Your task to perform on an android device: turn on showing notifications on the lock screen Image 0: 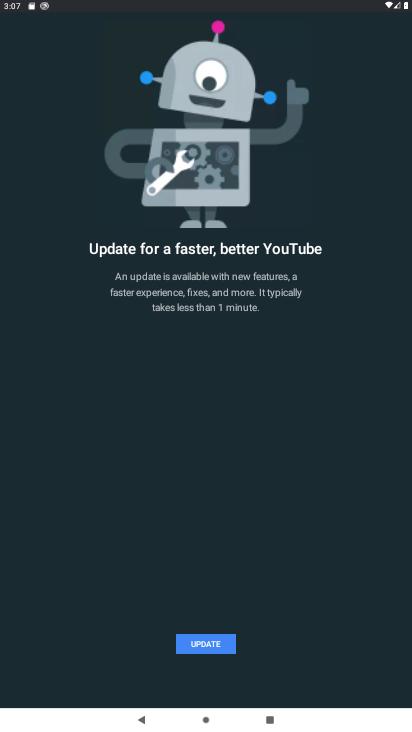
Step 0: press back button
Your task to perform on an android device: turn on showing notifications on the lock screen Image 1: 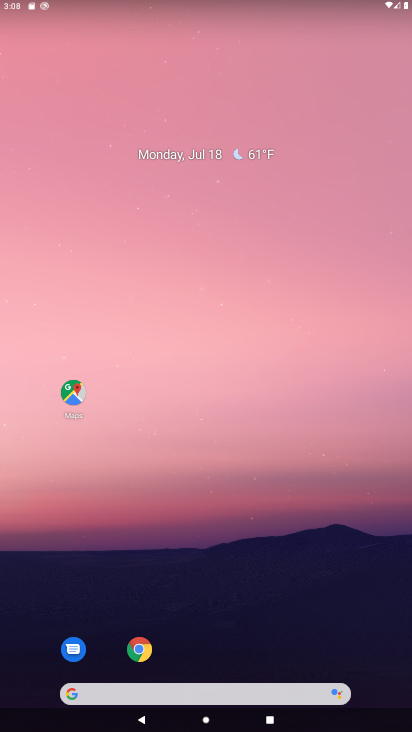
Step 1: drag from (276, 627) to (248, 150)
Your task to perform on an android device: turn on showing notifications on the lock screen Image 2: 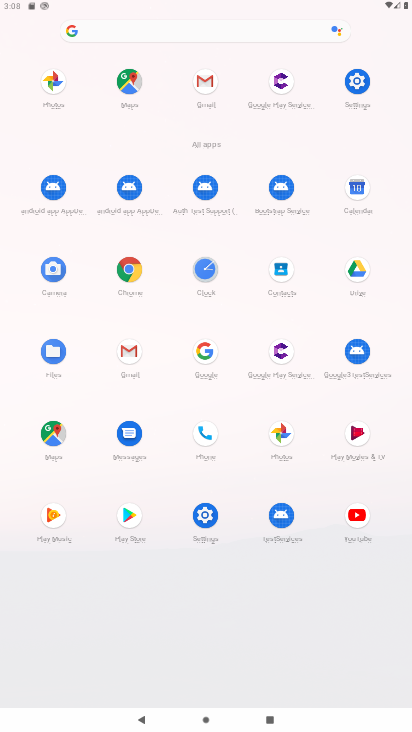
Step 2: click (363, 83)
Your task to perform on an android device: turn on showing notifications on the lock screen Image 3: 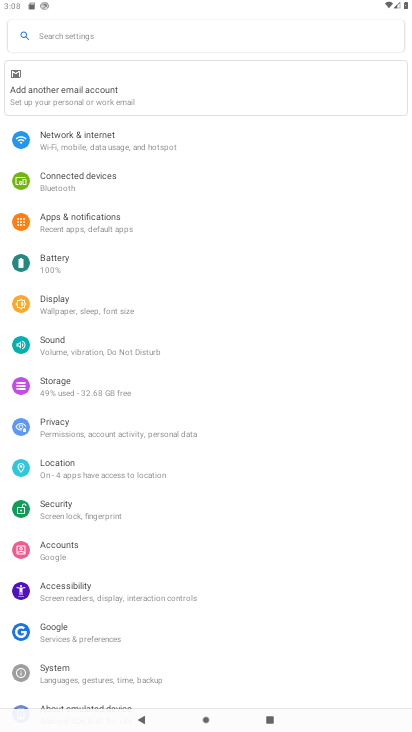
Step 3: click (84, 232)
Your task to perform on an android device: turn on showing notifications on the lock screen Image 4: 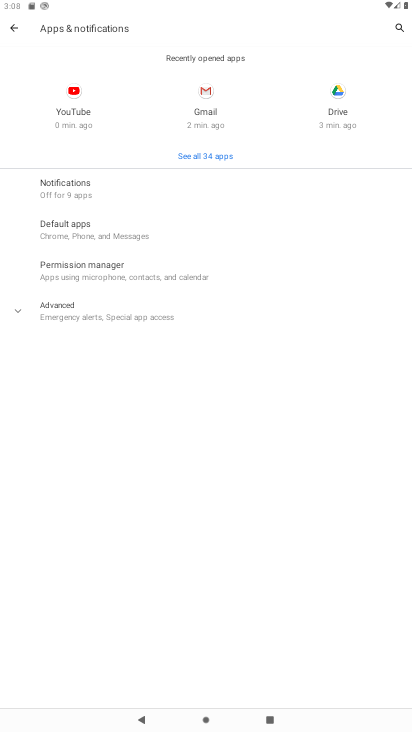
Step 4: click (77, 190)
Your task to perform on an android device: turn on showing notifications on the lock screen Image 5: 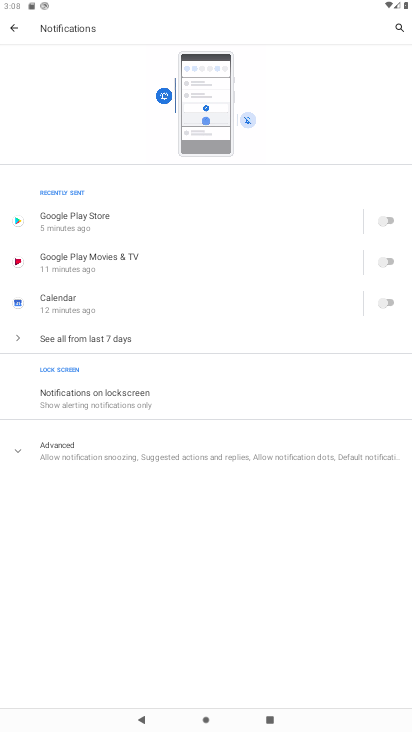
Step 5: click (66, 391)
Your task to perform on an android device: turn on showing notifications on the lock screen Image 6: 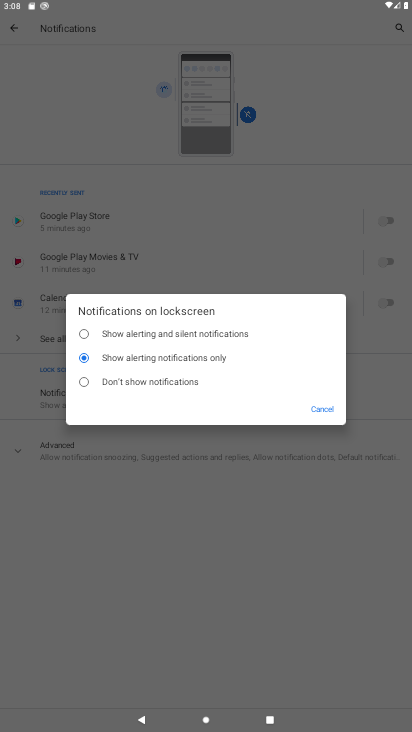
Step 6: click (102, 331)
Your task to perform on an android device: turn on showing notifications on the lock screen Image 7: 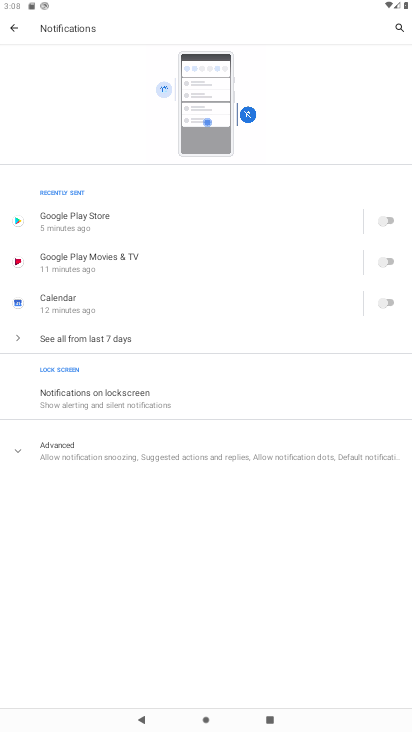
Step 7: task complete